Your task to perform on an android device: What's the weather going to be tomorrow? Image 0: 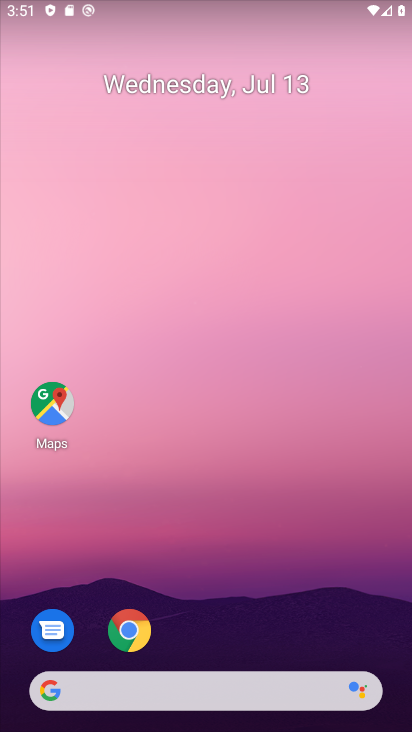
Step 0: press home button
Your task to perform on an android device: What's the weather going to be tomorrow? Image 1: 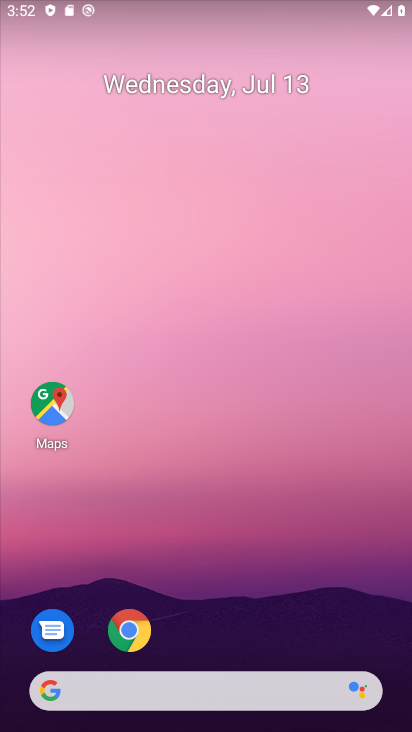
Step 1: click (49, 701)
Your task to perform on an android device: What's the weather going to be tomorrow? Image 2: 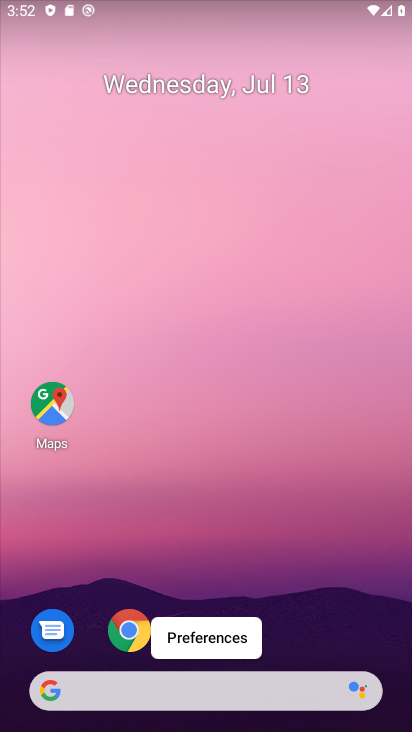
Step 2: click (51, 695)
Your task to perform on an android device: What's the weather going to be tomorrow? Image 3: 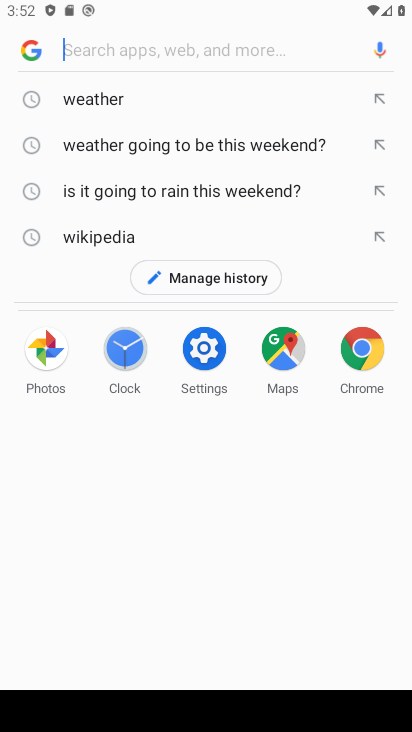
Step 3: type "weather going to be tomorrow?"
Your task to perform on an android device: What's the weather going to be tomorrow? Image 4: 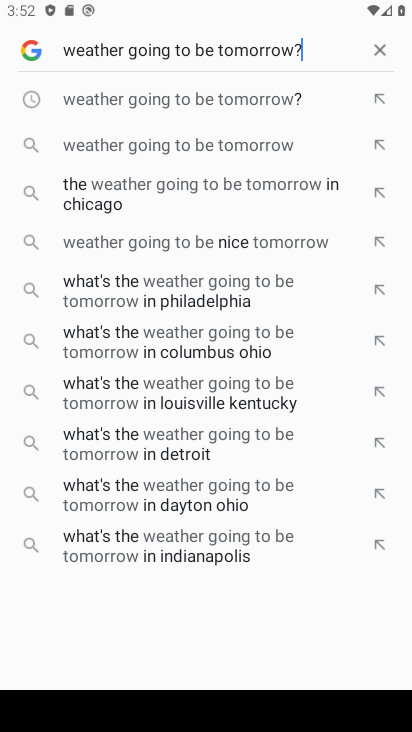
Step 4: press enter
Your task to perform on an android device: What's the weather going to be tomorrow? Image 5: 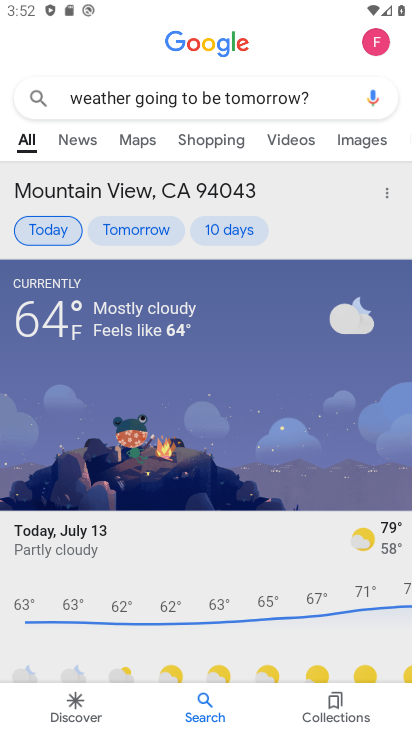
Step 5: task complete